Your task to perform on an android device: check battery use Image 0: 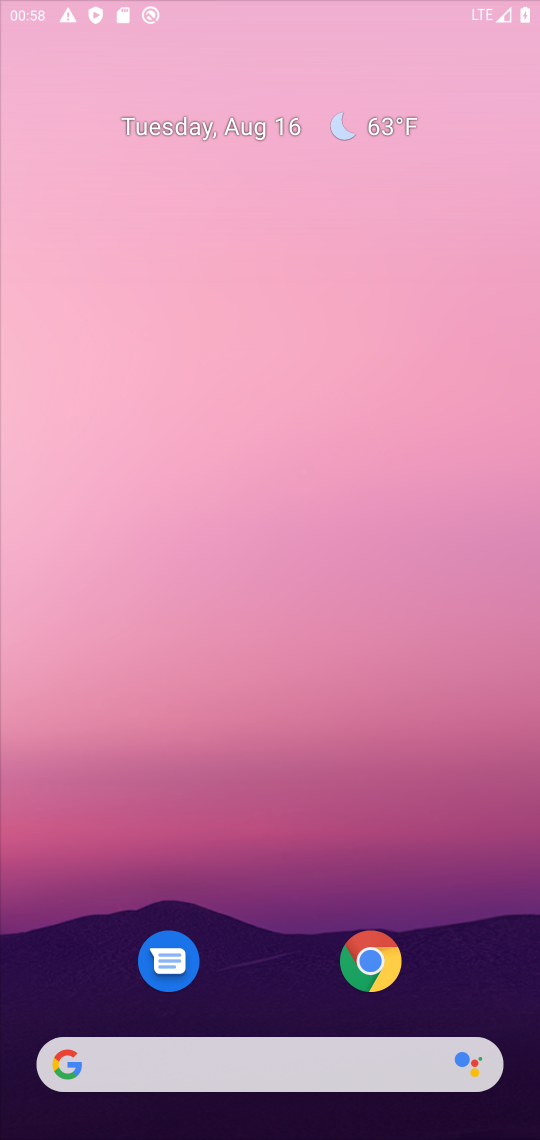
Step 0: press home button
Your task to perform on an android device: check battery use Image 1: 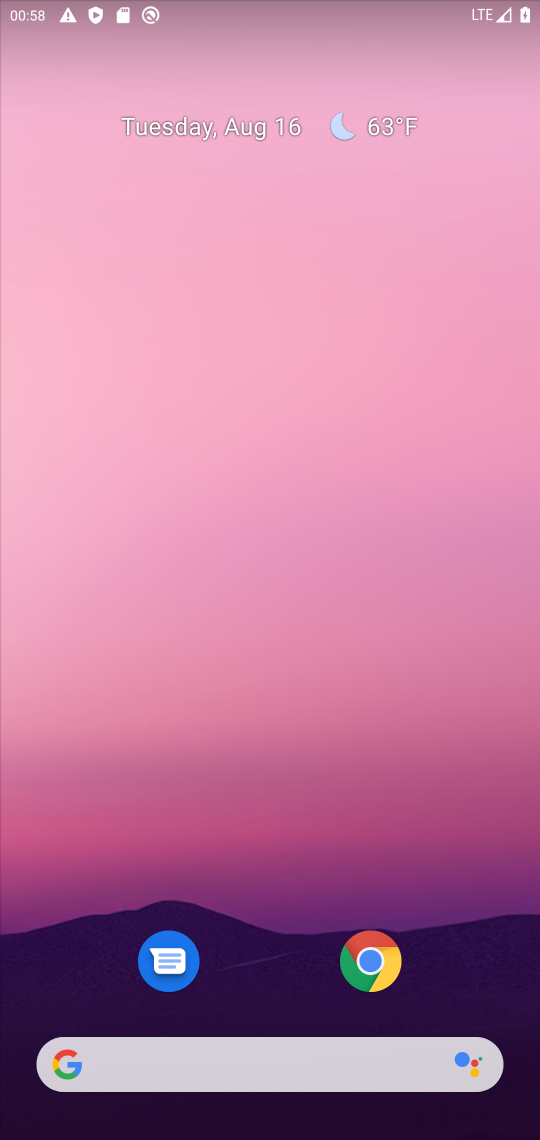
Step 1: press home button
Your task to perform on an android device: check battery use Image 2: 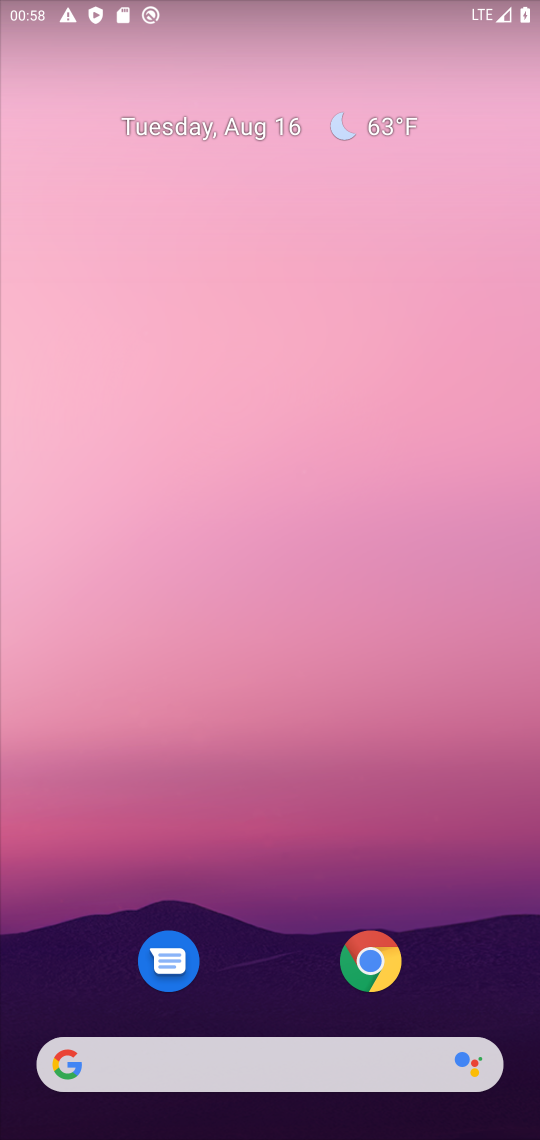
Step 2: press home button
Your task to perform on an android device: check battery use Image 3: 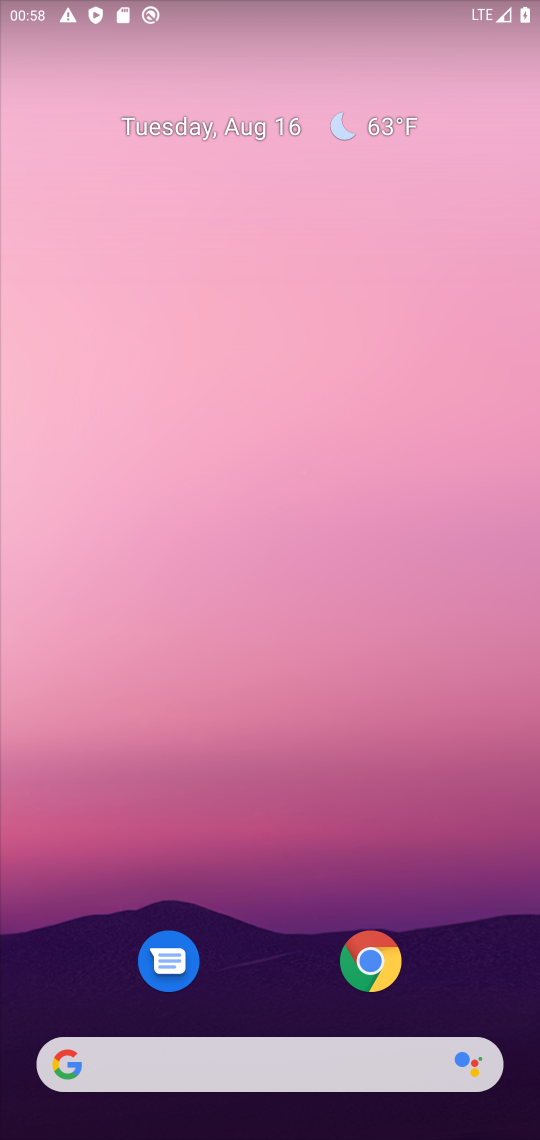
Step 3: press home button
Your task to perform on an android device: check battery use Image 4: 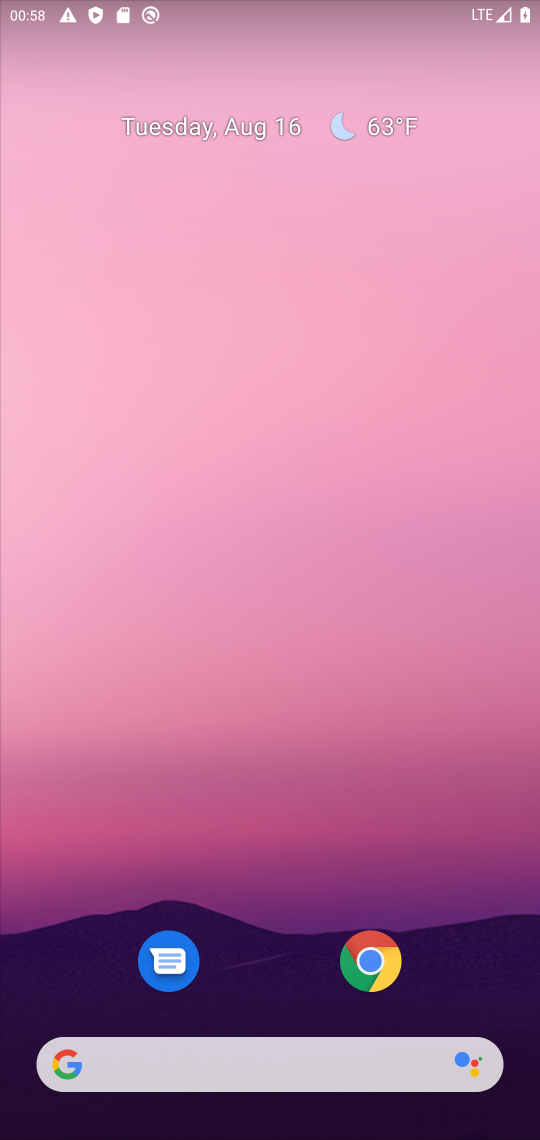
Step 4: press home button
Your task to perform on an android device: check battery use Image 5: 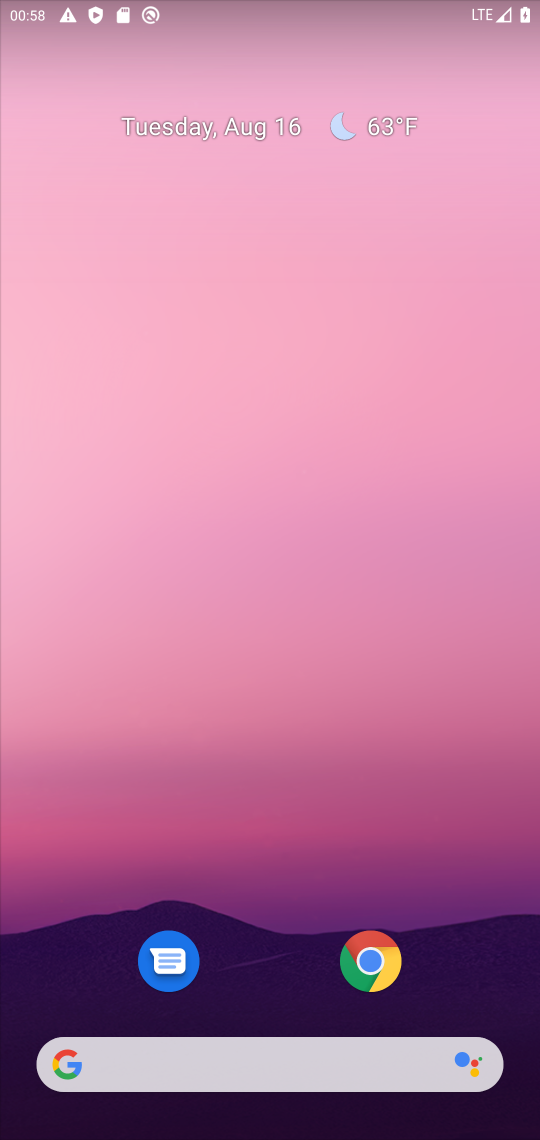
Step 5: press home button
Your task to perform on an android device: check battery use Image 6: 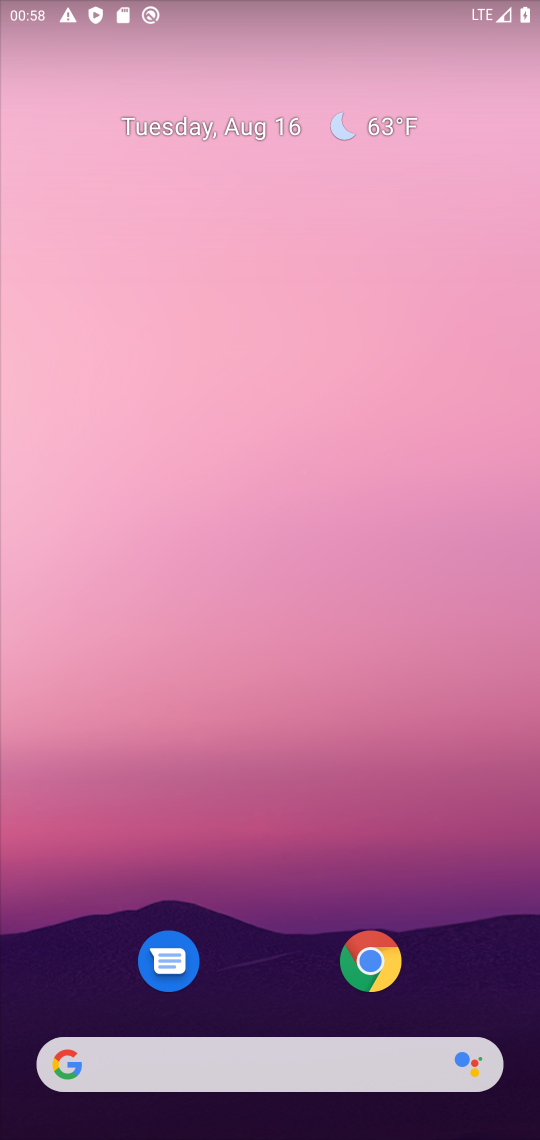
Step 6: drag from (264, 653) to (277, 0)
Your task to perform on an android device: check battery use Image 7: 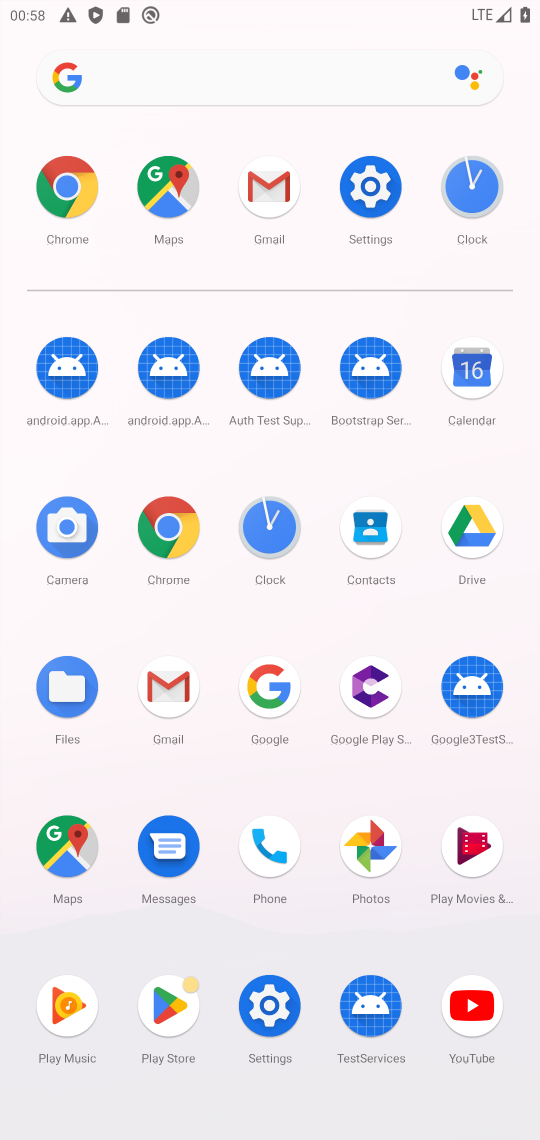
Step 7: click (257, 1008)
Your task to perform on an android device: check battery use Image 8: 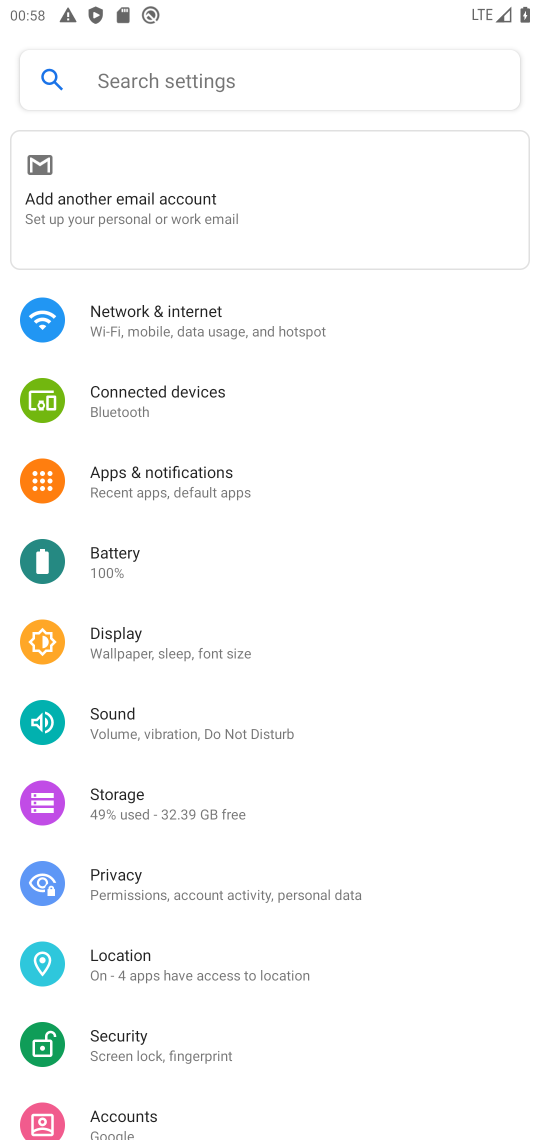
Step 8: click (146, 541)
Your task to perform on an android device: check battery use Image 9: 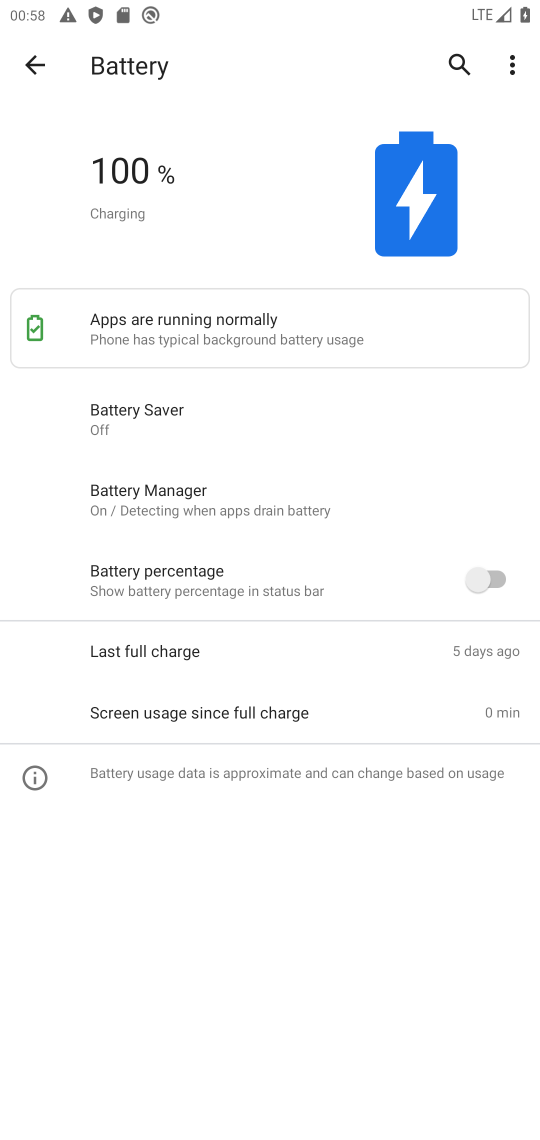
Step 9: task complete